Your task to perform on an android device: Open Google Maps Image 0: 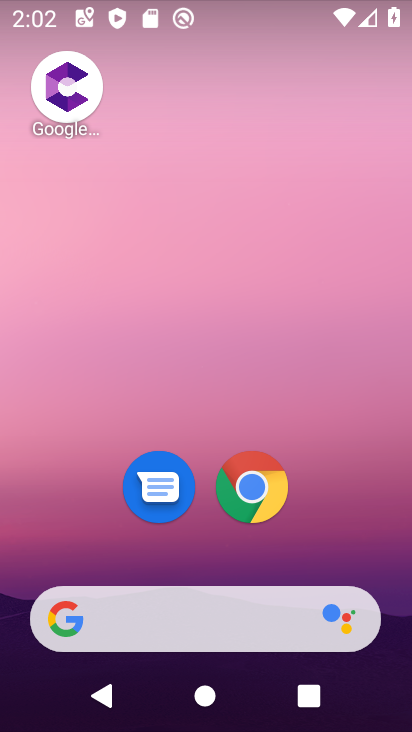
Step 0: drag from (212, 487) to (257, 125)
Your task to perform on an android device: Open Google Maps Image 1: 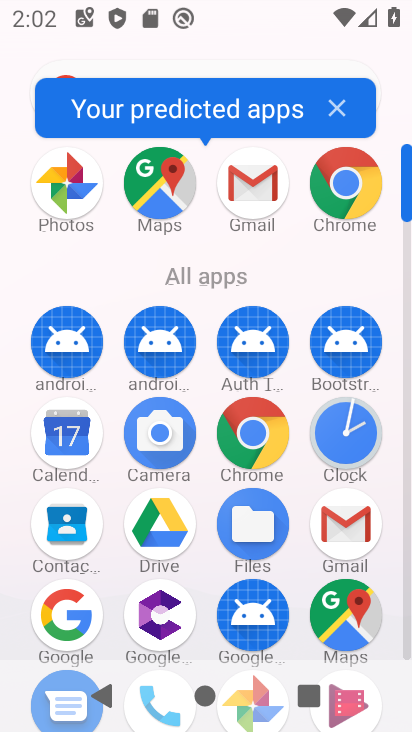
Step 1: click (156, 201)
Your task to perform on an android device: Open Google Maps Image 2: 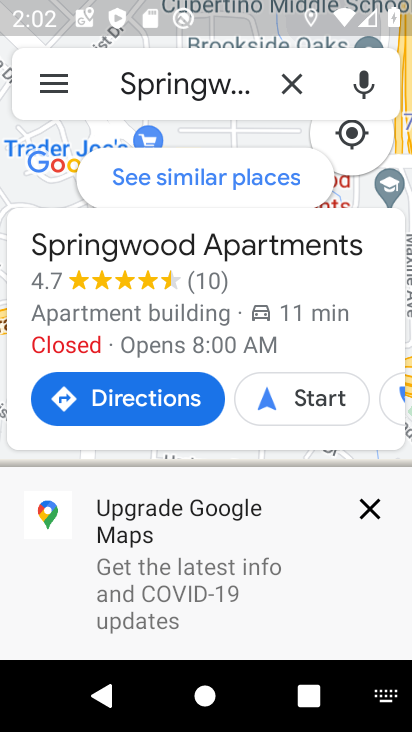
Step 2: task complete